Your task to perform on an android device: turn on wifi Image 0: 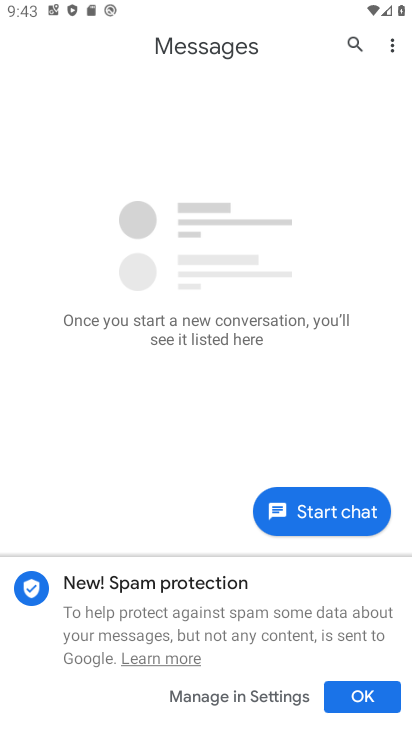
Step 0: press home button
Your task to perform on an android device: turn on wifi Image 1: 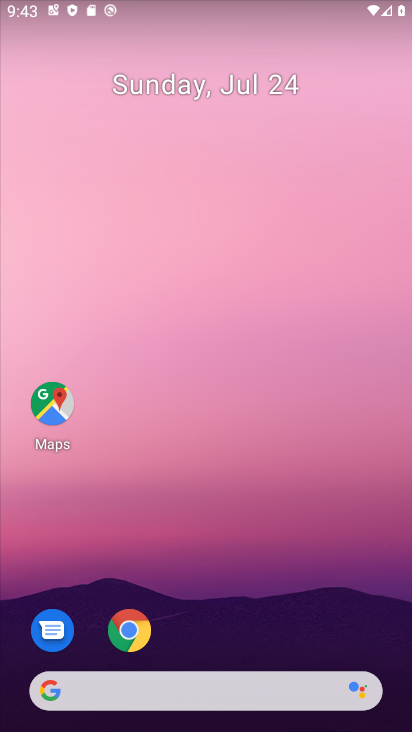
Step 1: drag from (227, 639) to (212, 252)
Your task to perform on an android device: turn on wifi Image 2: 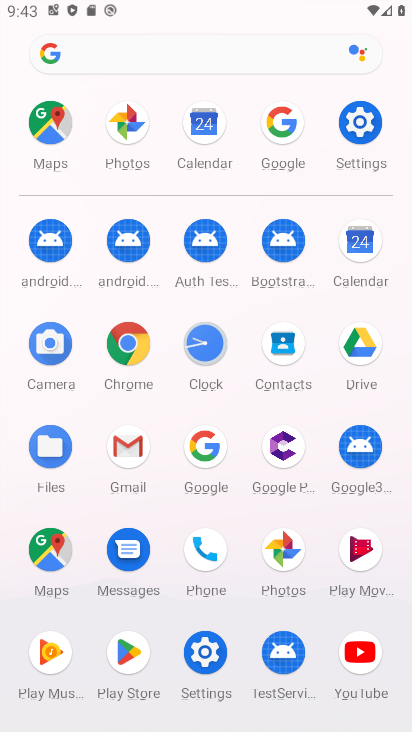
Step 2: click (347, 117)
Your task to perform on an android device: turn on wifi Image 3: 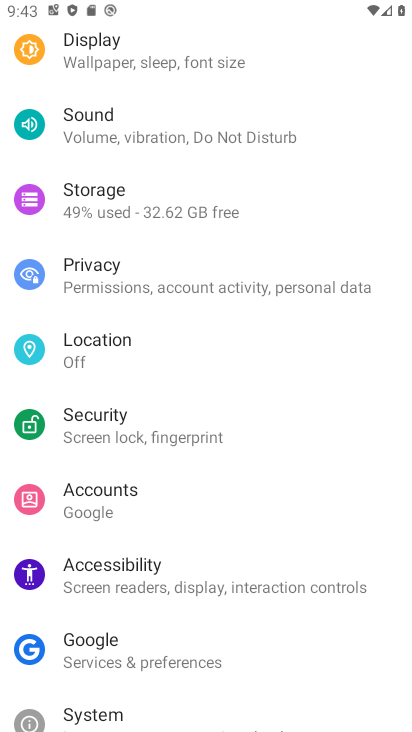
Step 3: drag from (182, 154) to (224, 518)
Your task to perform on an android device: turn on wifi Image 4: 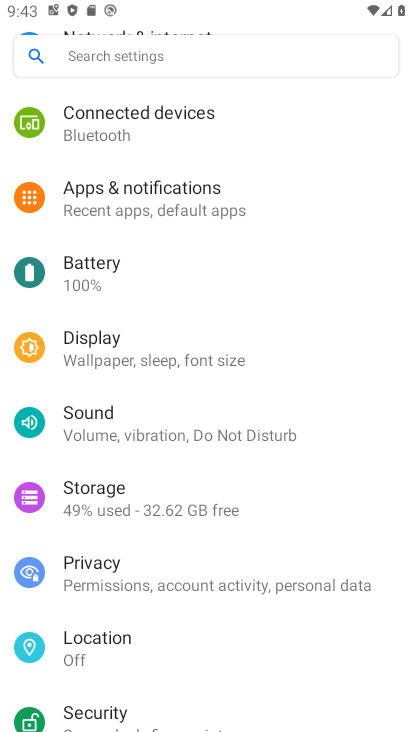
Step 4: click (236, 561)
Your task to perform on an android device: turn on wifi Image 5: 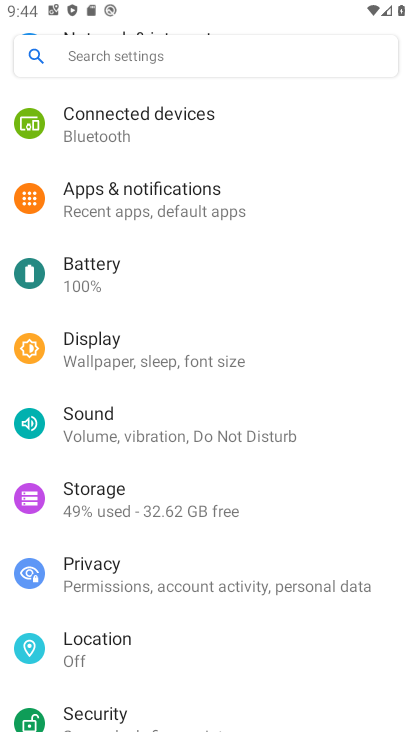
Step 5: drag from (207, 190) to (216, 603)
Your task to perform on an android device: turn on wifi Image 6: 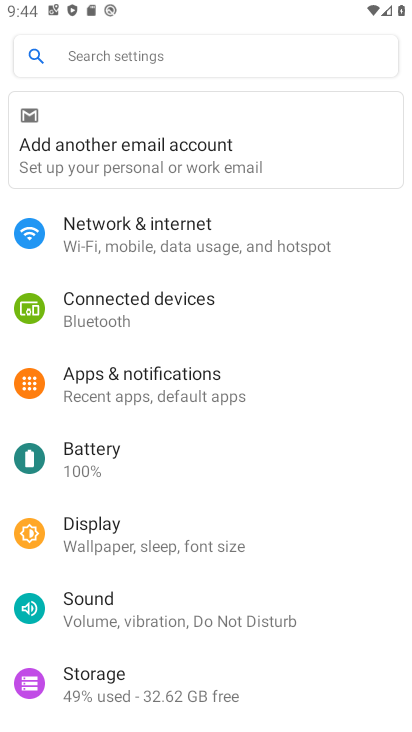
Step 6: click (126, 267)
Your task to perform on an android device: turn on wifi Image 7: 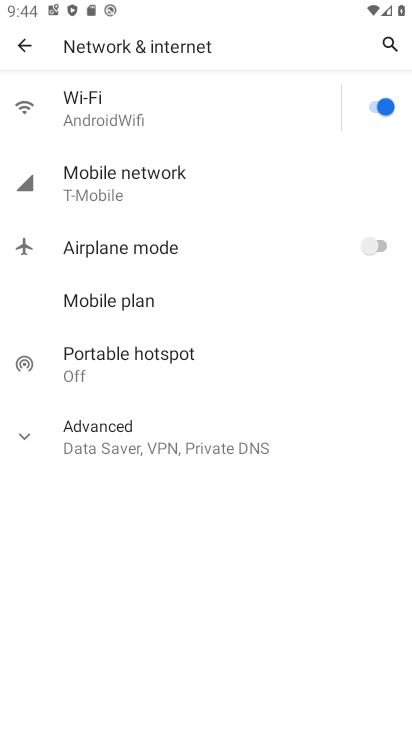
Step 7: task complete